Your task to perform on an android device: Open internet settings Image 0: 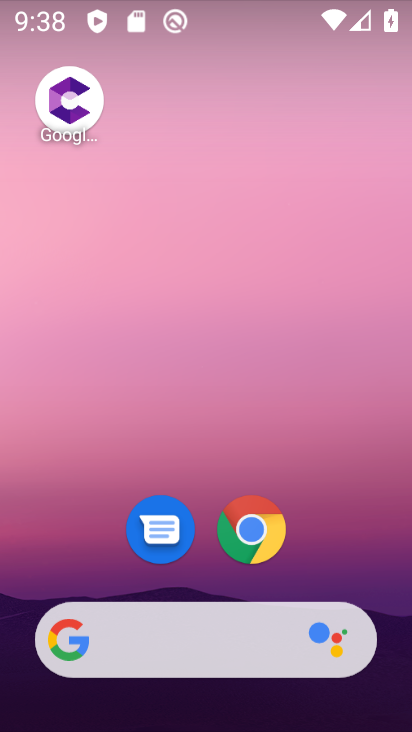
Step 0: drag from (351, 565) to (353, 239)
Your task to perform on an android device: Open internet settings Image 1: 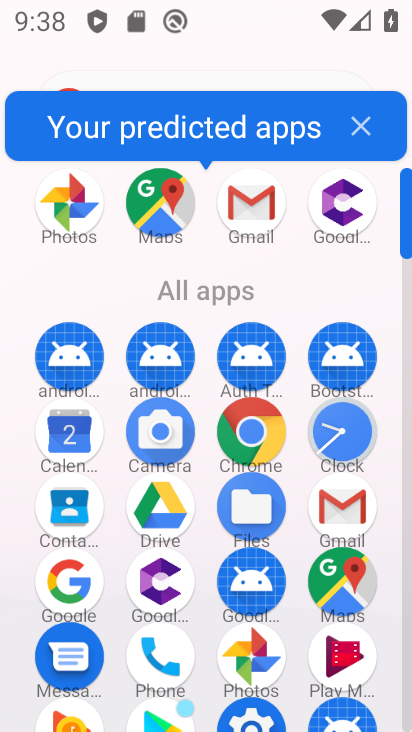
Step 1: drag from (386, 304) to (401, 138)
Your task to perform on an android device: Open internet settings Image 2: 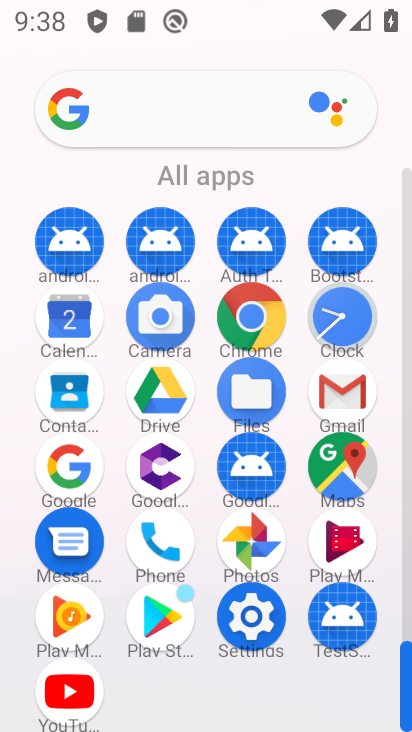
Step 2: click (265, 622)
Your task to perform on an android device: Open internet settings Image 3: 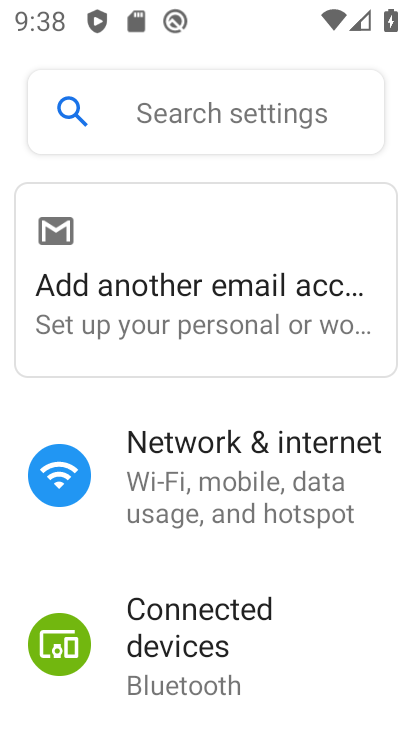
Step 3: click (247, 510)
Your task to perform on an android device: Open internet settings Image 4: 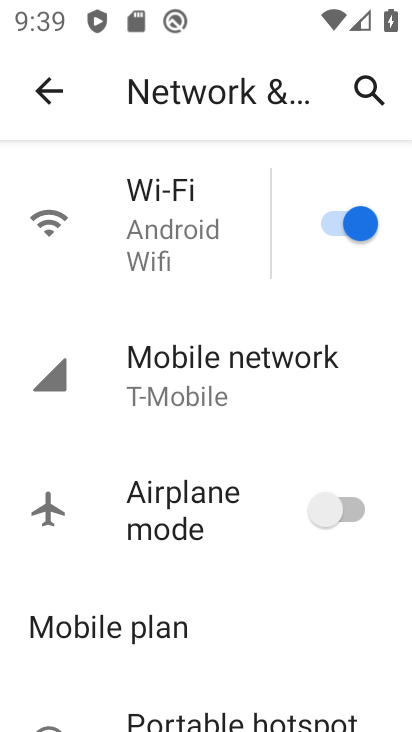
Step 4: task complete